Your task to perform on an android device: Do I have any events today? Image 0: 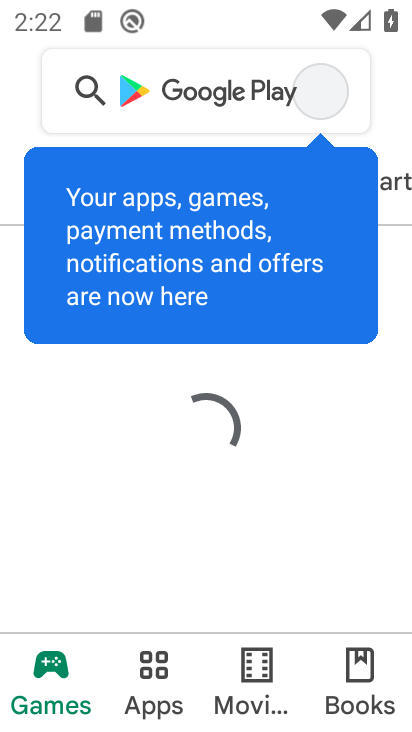
Step 0: press home button
Your task to perform on an android device: Do I have any events today? Image 1: 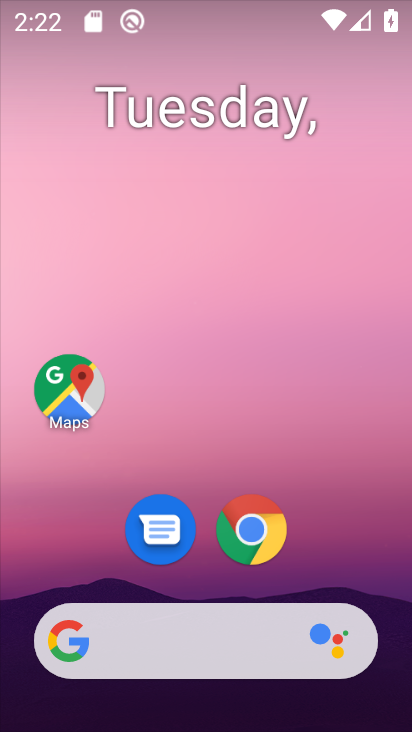
Step 1: drag from (388, 624) to (253, 45)
Your task to perform on an android device: Do I have any events today? Image 2: 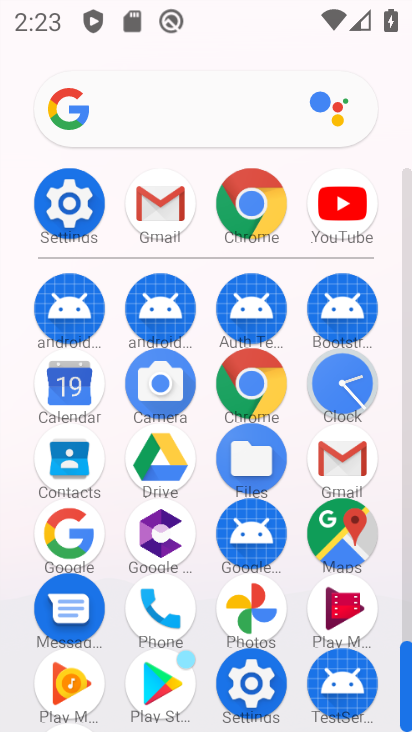
Step 2: click (70, 401)
Your task to perform on an android device: Do I have any events today? Image 3: 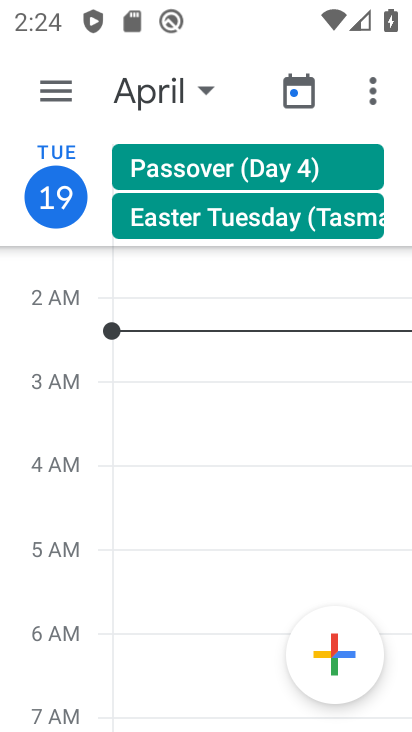
Step 3: click (133, 87)
Your task to perform on an android device: Do I have any events today? Image 4: 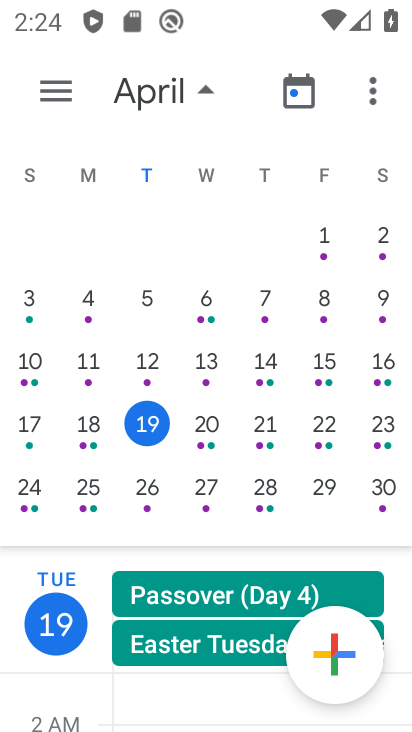
Step 4: click (61, 438)
Your task to perform on an android device: Do I have any events today? Image 5: 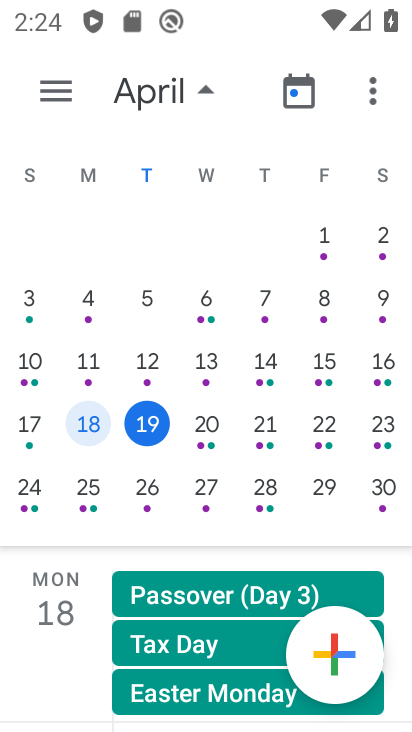
Step 5: click (66, 615)
Your task to perform on an android device: Do I have any events today? Image 6: 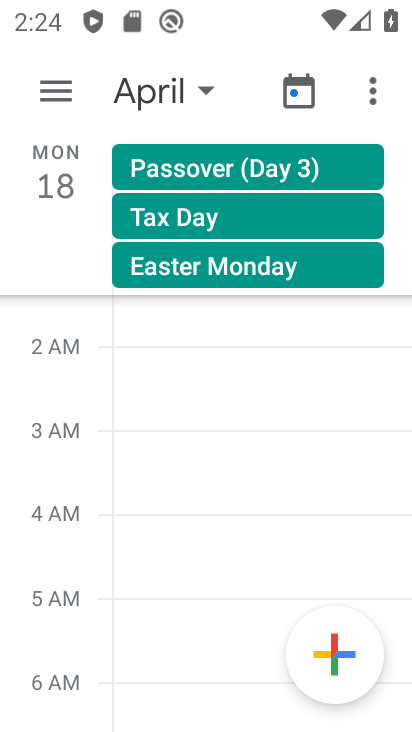
Step 6: task complete